Your task to perform on an android device: toggle sleep mode Image 0: 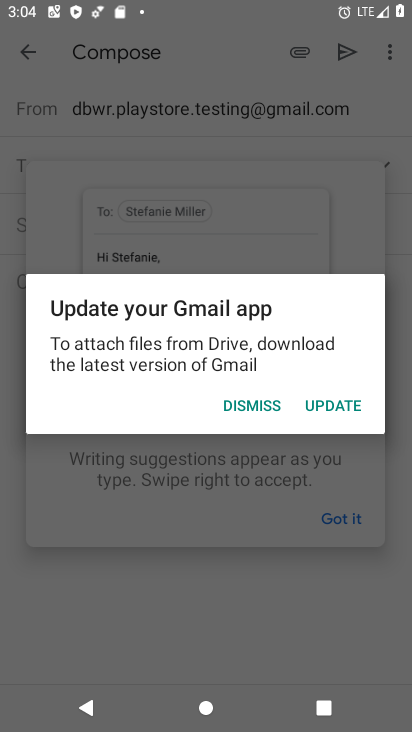
Step 0: press home button
Your task to perform on an android device: toggle sleep mode Image 1: 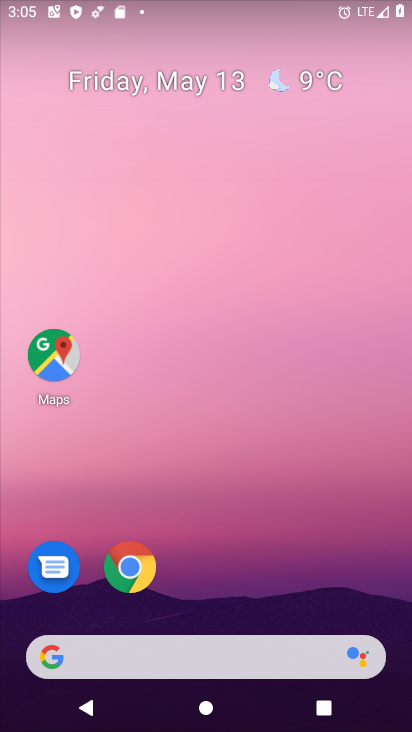
Step 1: click (192, 653)
Your task to perform on an android device: toggle sleep mode Image 2: 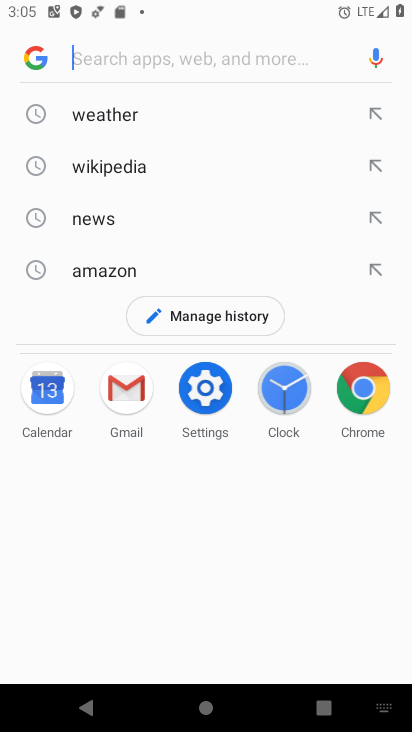
Step 2: type "sleep mode"
Your task to perform on an android device: toggle sleep mode Image 3: 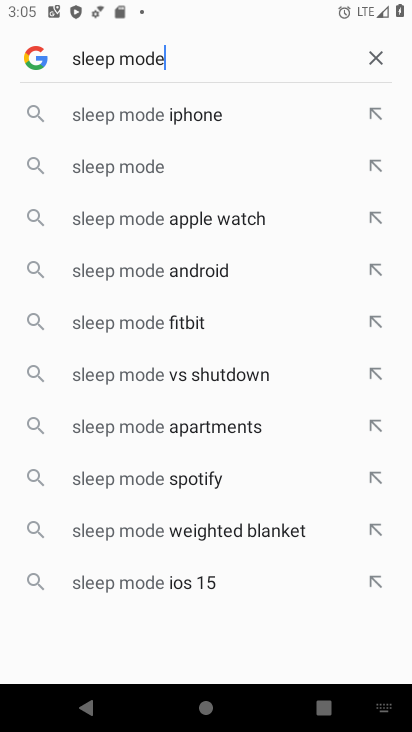
Step 3: click (85, 176)
Your task to perform on an android device: toggle sleep mode Image 4: 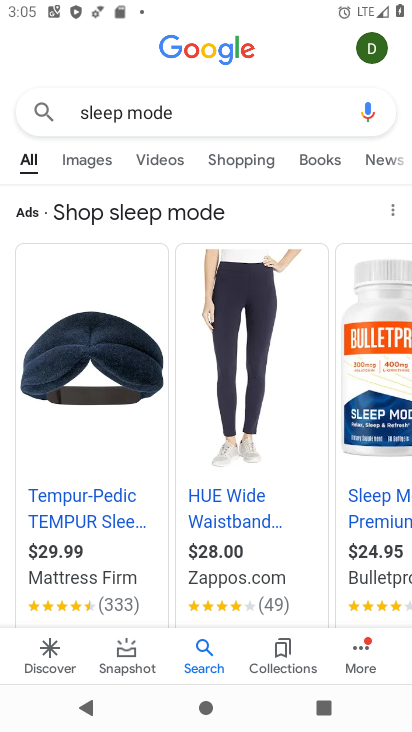
Step 4: task complete